Your task to perform on an android device: turn off wifi Image 0: 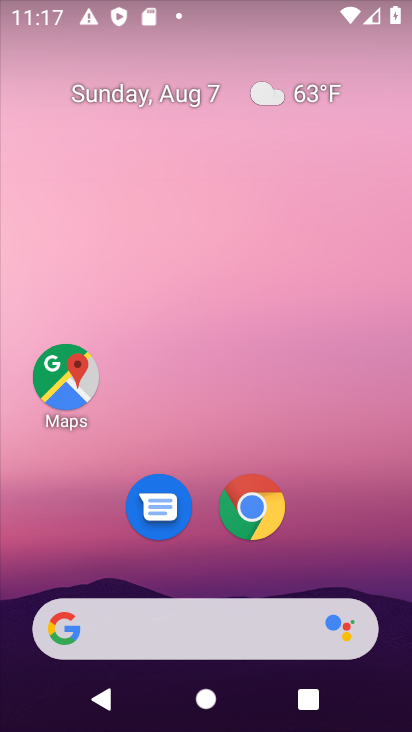
Step 0: drag from (323, 11) to (235, 673)
Your task to perform on an android device: turn off wifi Image 1: 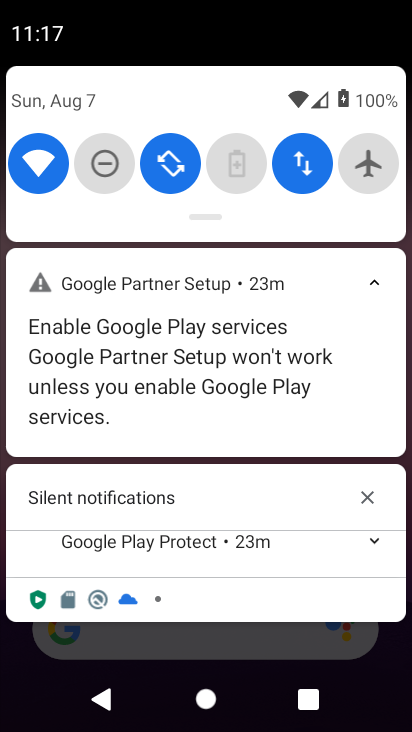
Step 1: click (42, 152)
Your task to perform on an android device: turn off wifi Image 2: 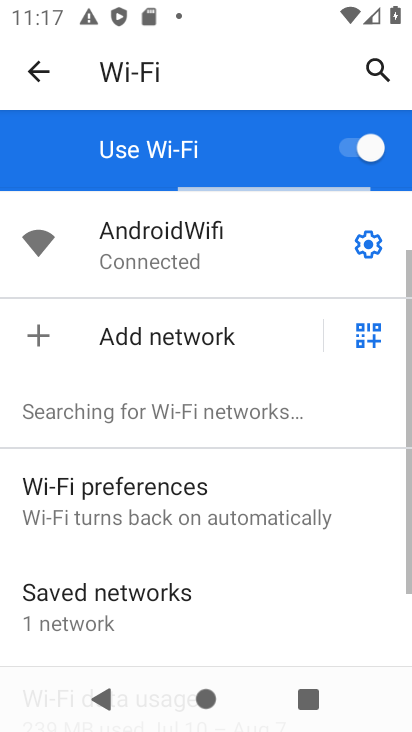
Step 2: click (373, 153)
Your task to perform on an android device: turn off wifi Image 3: 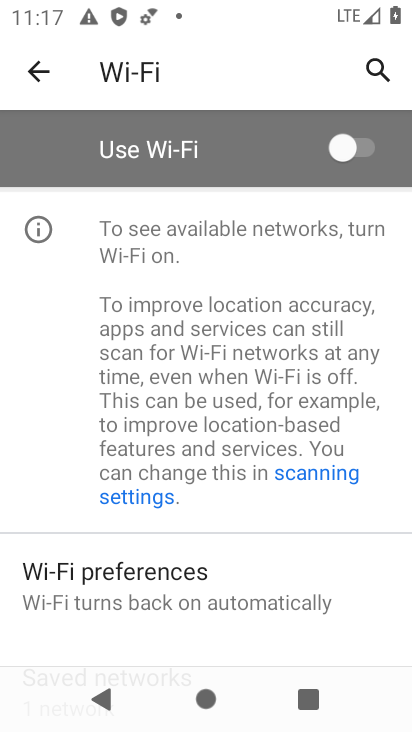
Step 3: task complete